Your task to perform on an android device: toggle data saver in the chrome app Image 0: 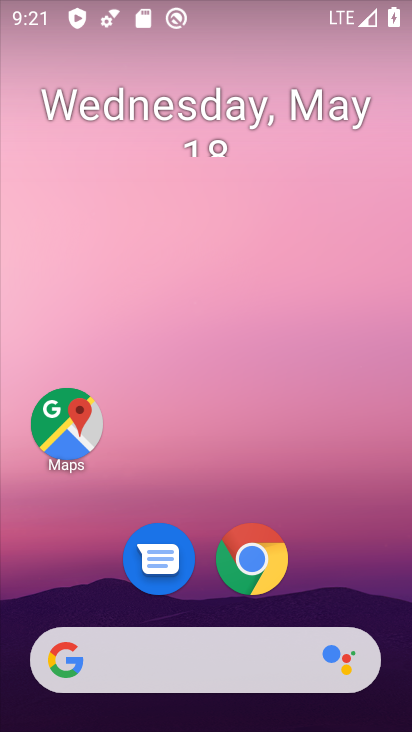
Step 0: drag from (354, 572) to (251, 48)
Your task to perform on an android device: toggle data saver in the chrome app Image 1: 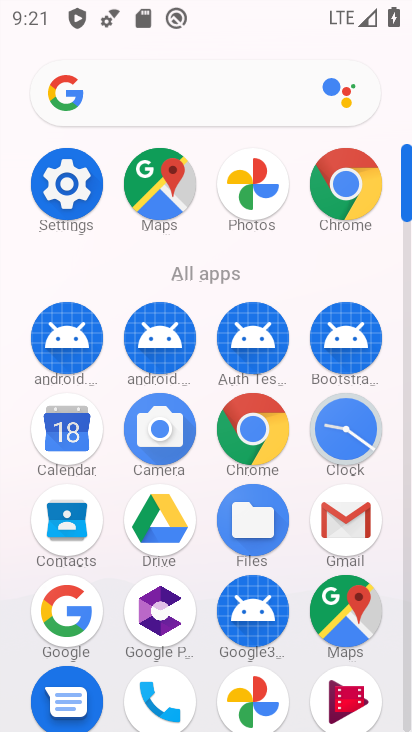
Step 1: drag from (16, 580) to (32, 227)
Your task to perform on an android device: toggle data saver in the chrome app Image 2: 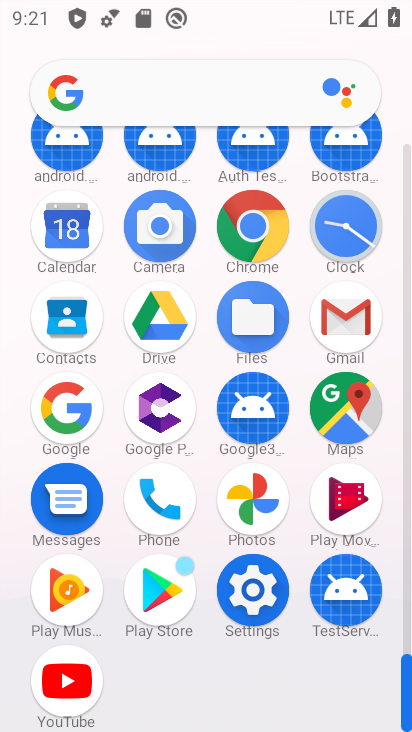
Step 2: click (253, 224)
Your task to perform on an android device: toggle data saver in the chrome app Image 3: 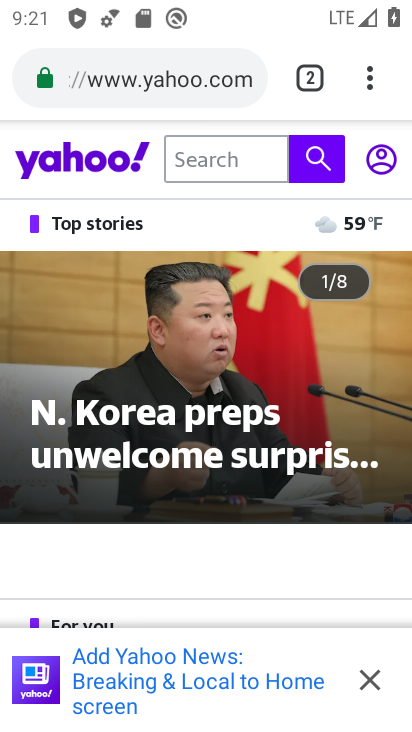
Step 3: drag from (364, 73) to (125, 598)
Your task to perform on an android device: toggle data saver in the chrome app Image 4: 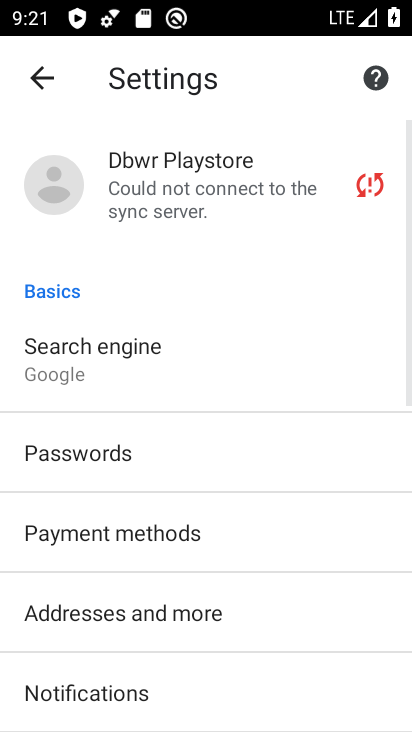
Step 4: drag from (223, 598) to (233, 176)
Your task to perform on an android device: toggle data saver in the chrome app Image 5: 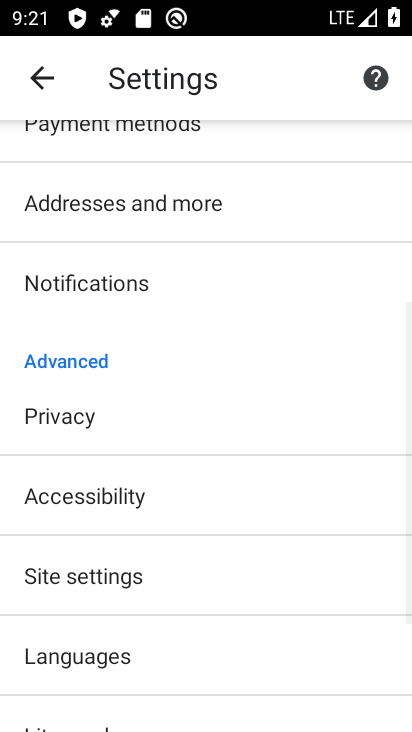
Step 5: drag from (226, 572) to (241, 168)
Your task to perform on an android device: toggle data saver in the chrome app Image 6: 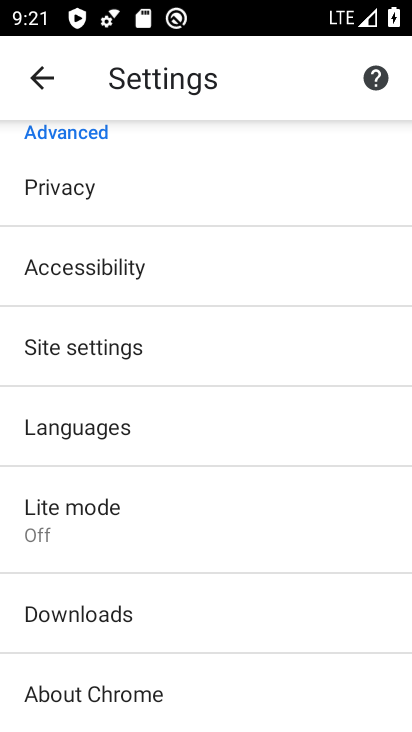
Step 6: click (108, 512)
Your task to perform on an android device: toggle data saver in the chrome app Image 7: 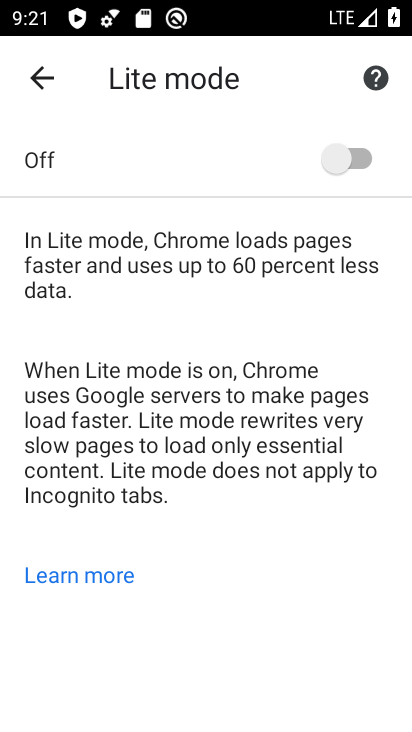
Step 7: click (354, 155)
Your task to perform on an android device: toggle data saver in the chrome app Image 8: 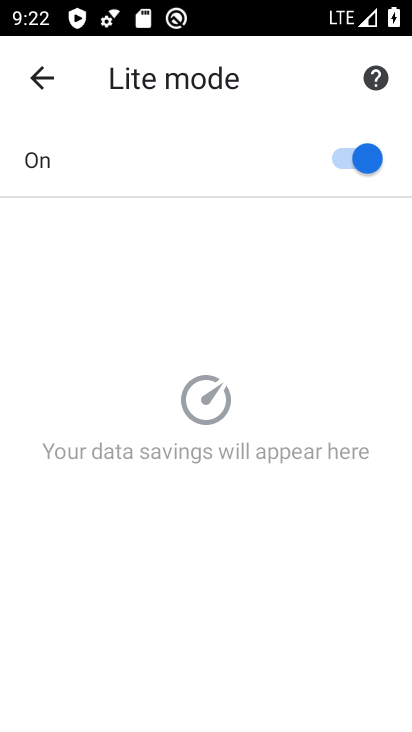
Step 8: task complete